Your task to perform on an android device: What's on my calendar tomorrow? Image 0: 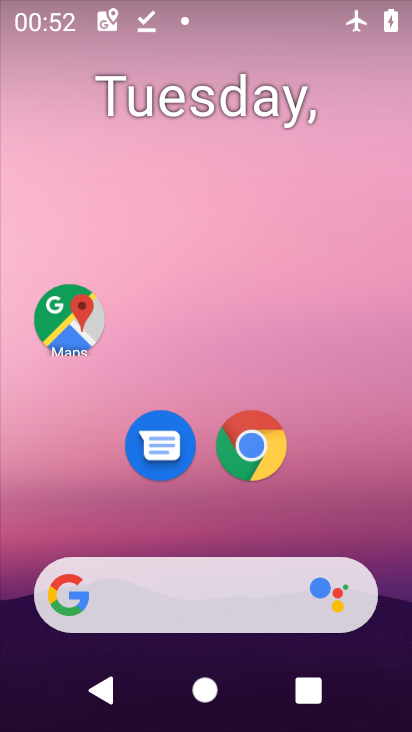
Step 0: drag from (296, 513) to (199, 137)
Your task to perform on an android device: What's on my calendar tomorrow? Image 1: 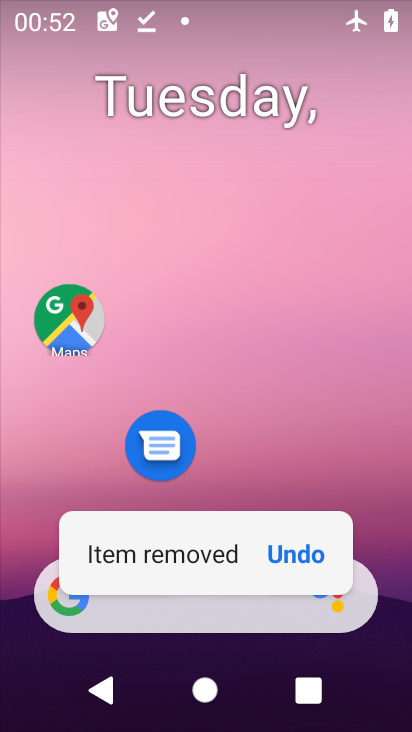
Step 1: drag from (375, 486) to (257, 2)
Your task to perform on an android device: What's on my calendar tomorrow? Image 2: 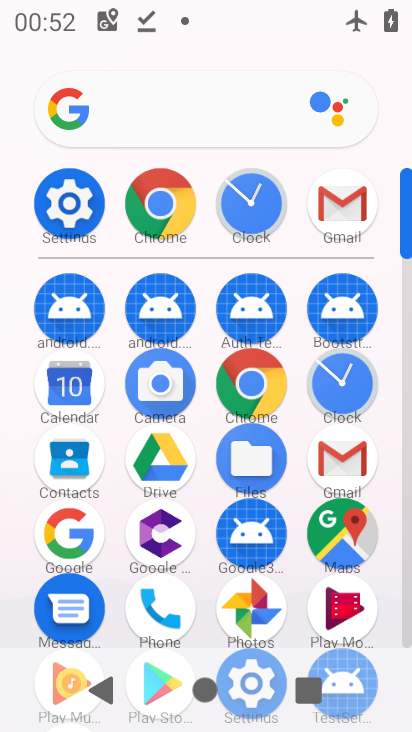
Step 2: click (75, 377)
Your task to perform on an android device: What's on my calendar tomorrow? Image 3: 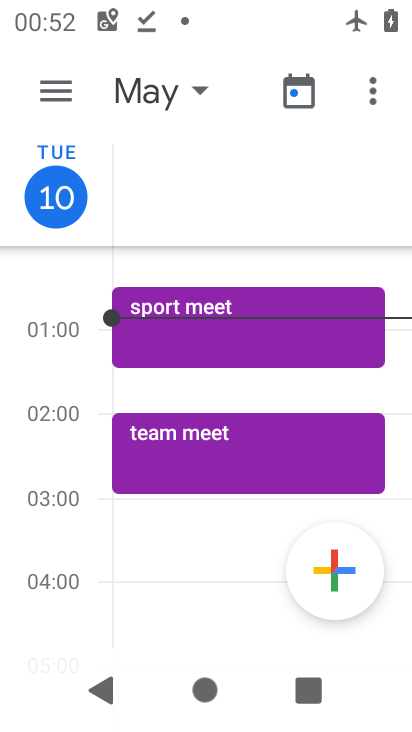
Step 3: click (178, 142)
Your task to perform on an android device: What's on my calendar tomorrow? Image 4: 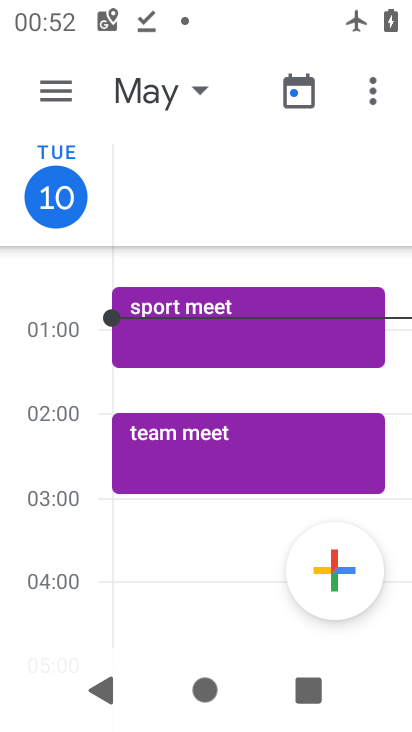
Step 4: task complete